Your task to perform on an android device: Go to network settings Image 0: 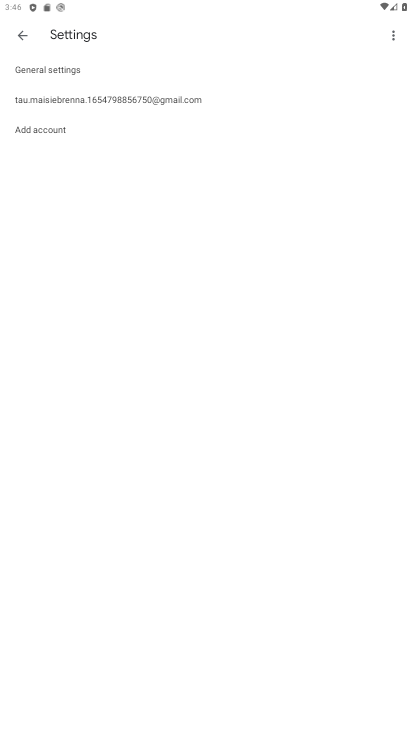
Step 0: drag from (231, 668) to (331, 427)
Your task to perform on an android device: Go to network settings Image 1: 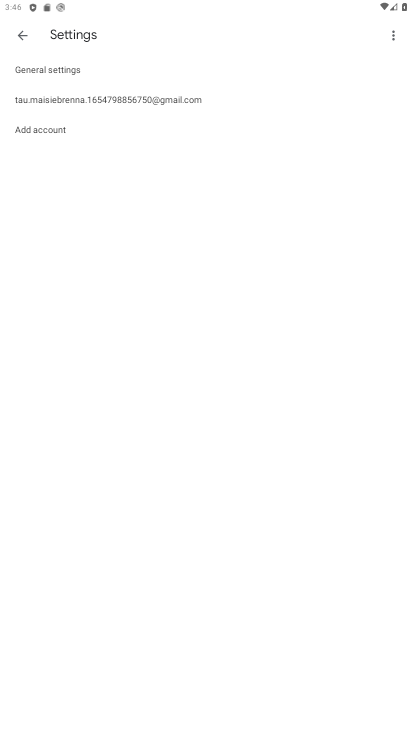
Step 1: press home button
Your task to perform on an android device: Go to network settings Image 2: 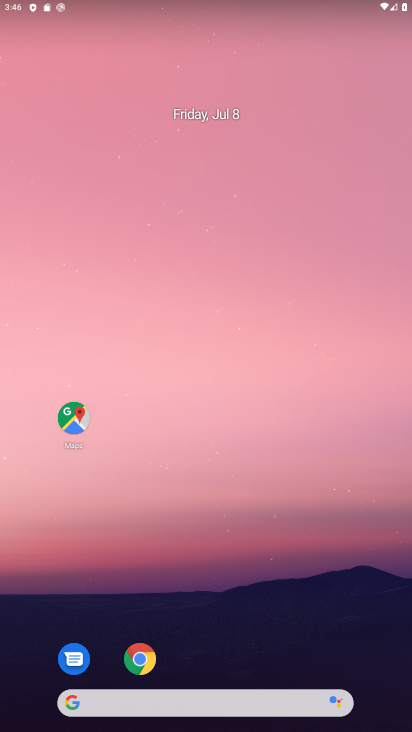
Step 2: drag from (175, 651) to (275, 131)
Your task to perform on an android device: Go to network settings Image 3: 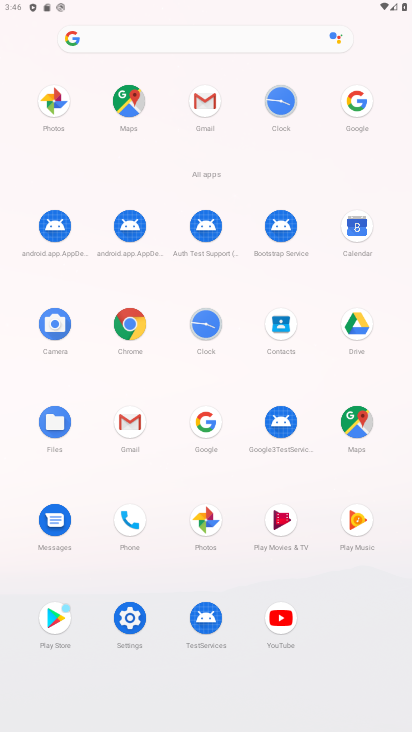
Step 3: click (129, 629)
Your task to perform on an android device: Go to network settings Image 4: 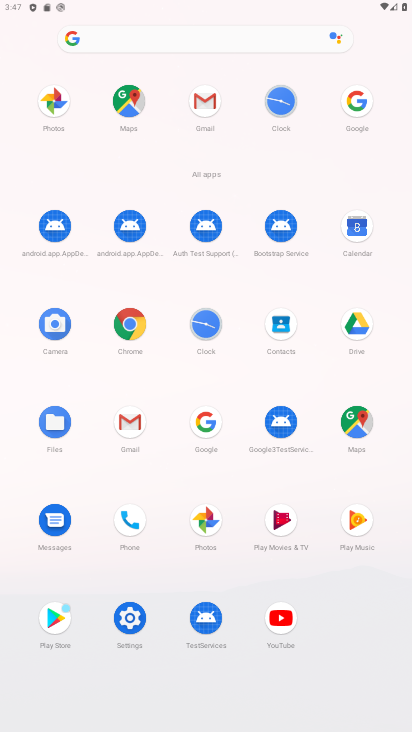
Step 4: click (149, 609)
Your task to perform on an android device: Go to network settings Image 5: 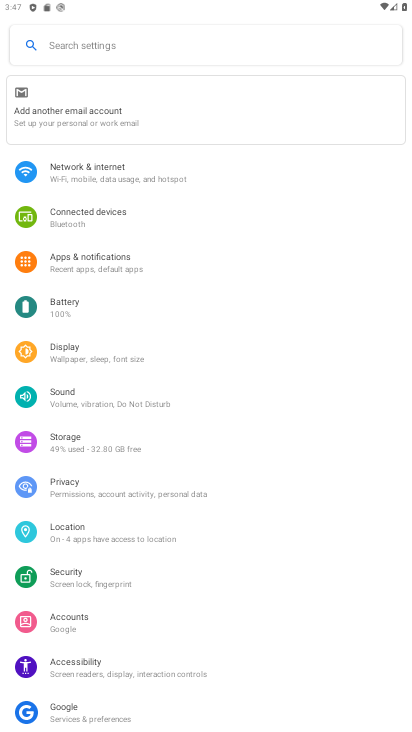
Step 5: click (220, 172)
Your task to perform on an android device: Go to network settings Image 6: 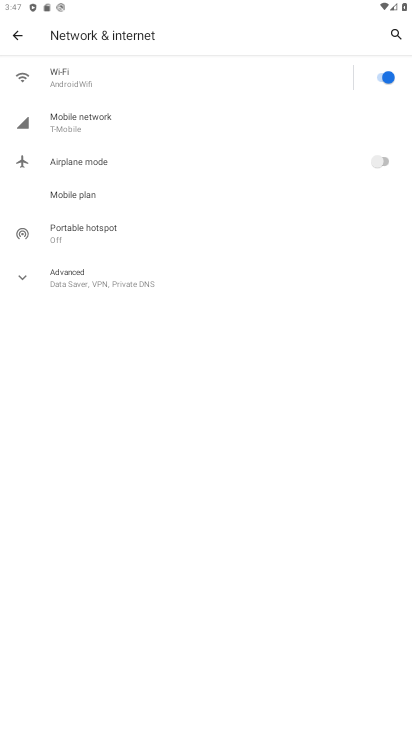
Step 6: click (96, 131)
Your task to perform on an android device: Go to network settings Image 7: 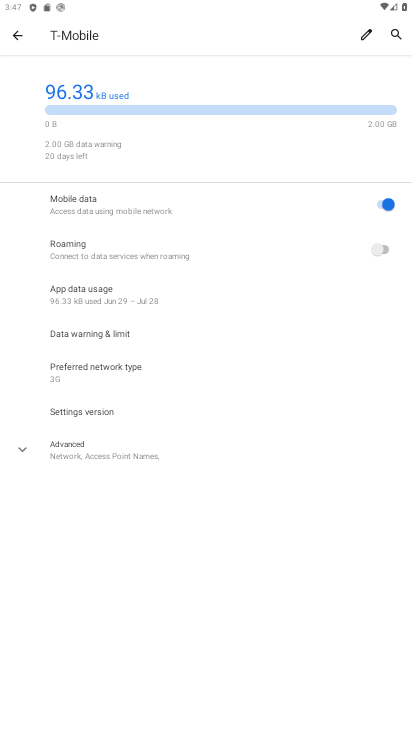
Step 7: task complete